Your task to perform on an android device: turn notification dots on Image 0: 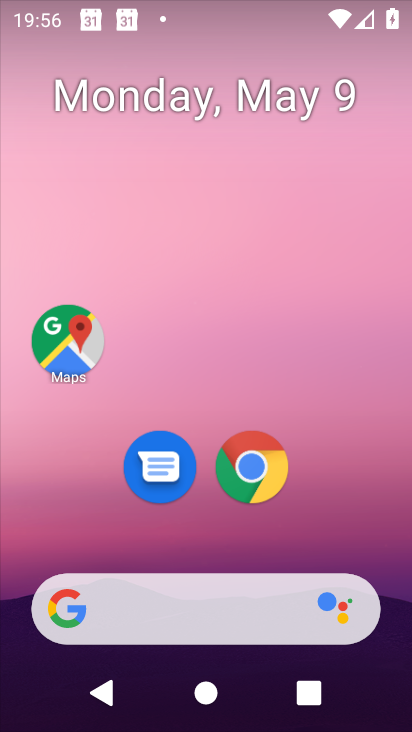
Step 0: drag from (347, 503) to (262, 50)
Your task to perform on an android device: turn notification dots on Image 1: 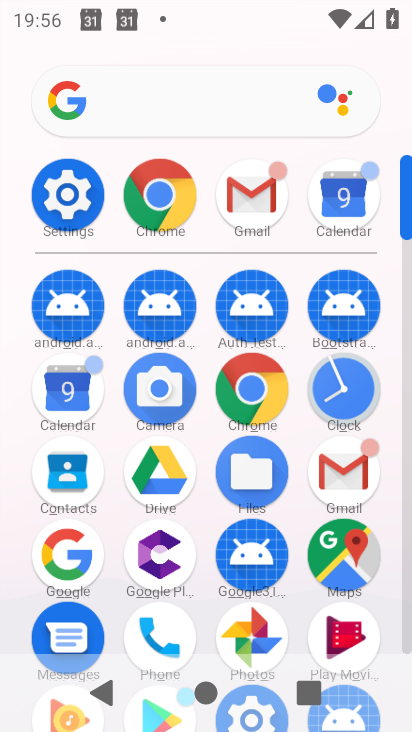
Step 1: click (54, 198)
Your task to perform on an android device: turn notification dots on Image 2: 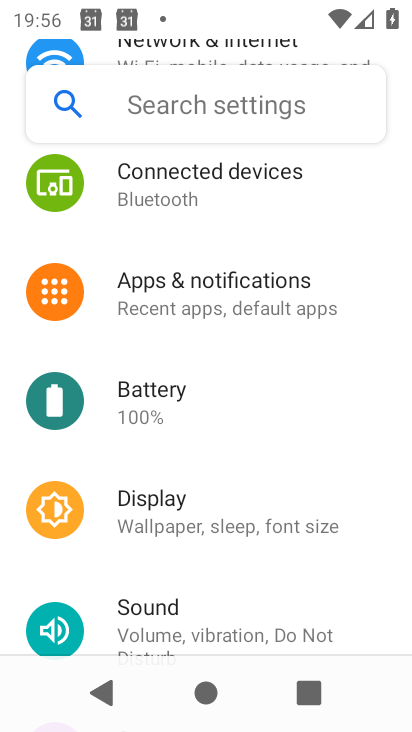
Step 2: click (189, 293)
Your task to perform on an android device: turn notification dots on Image 3: 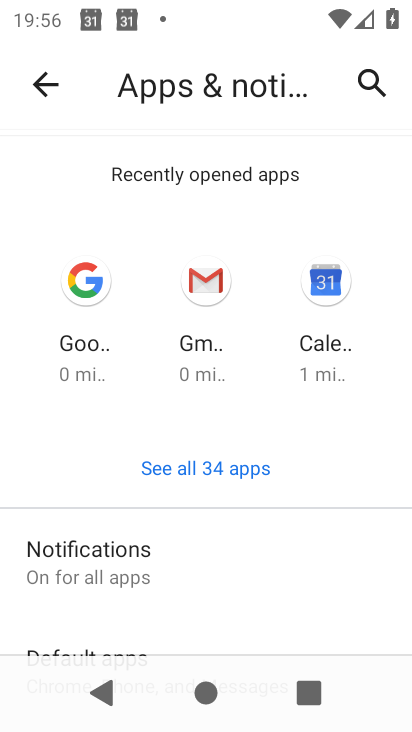
Step 3: drag from (286, 632) to (239, 231)
Your task to perform on an android device: turn notification dots on Image 4: 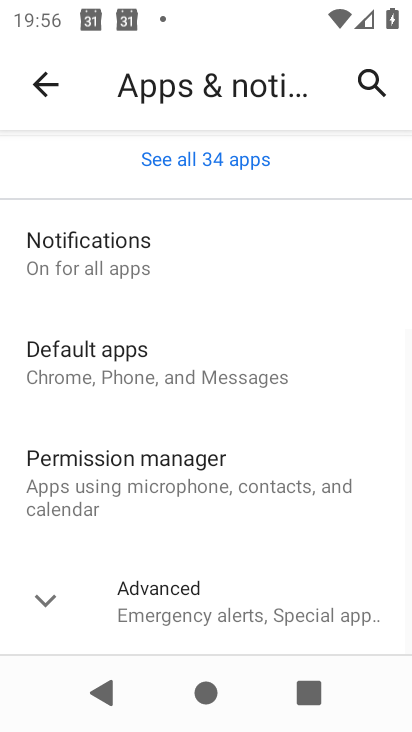
Step 4: click (175, 243)
Your task to perform on an android device: turn notification dots on Image 5: 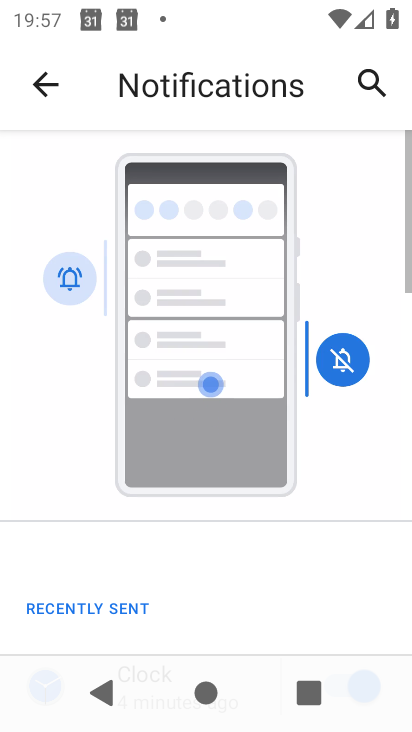
Step 5: drag from (342, 571) to (249, 12)
Your task to perform on an android device: turn notification dots on Image 6: 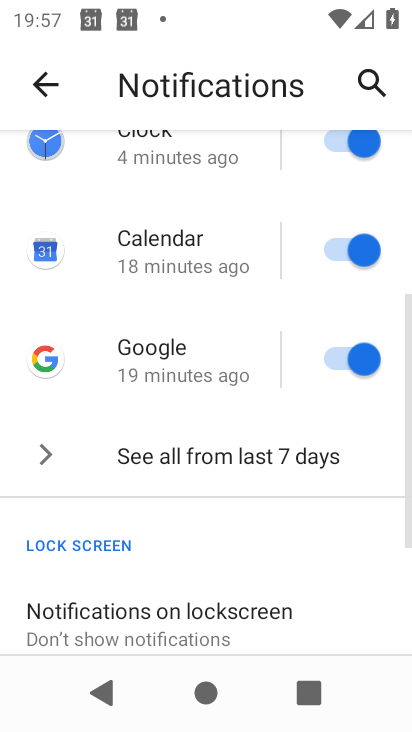
Step 6: drag from (203, 557) to (164, 47)
Your task to perform on an android device: turn notification dots on Image 7: 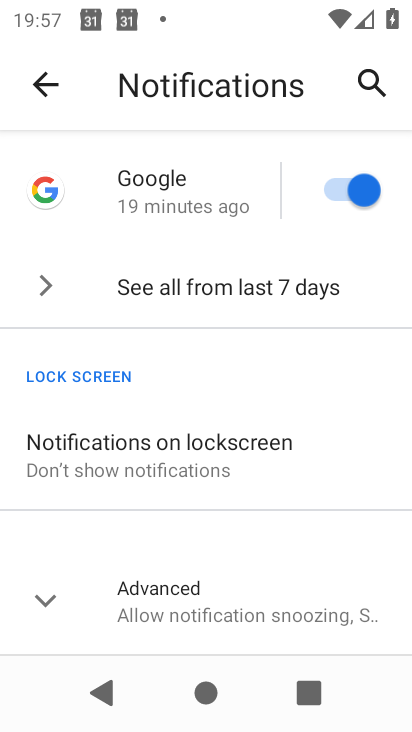
Step 7: click (178, 590)
Your task to perform on an android device: turn notification dots on Image 8: 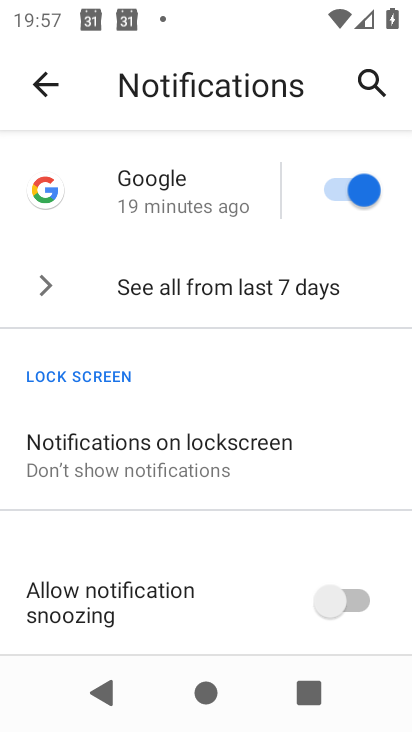
Step 8: task complete